Your task to perform on an android device: Go to wifi settings Image 0: 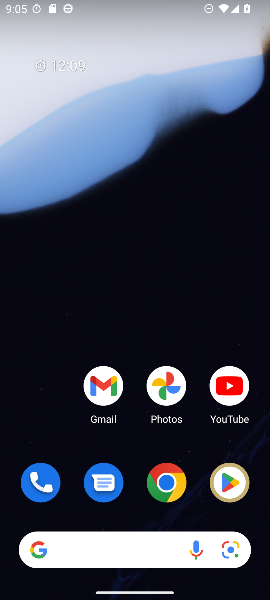
Step 0: drag from (138, 454) to (169, 55)
Your task to perform on an android device: Go to wifi settings Image 1: 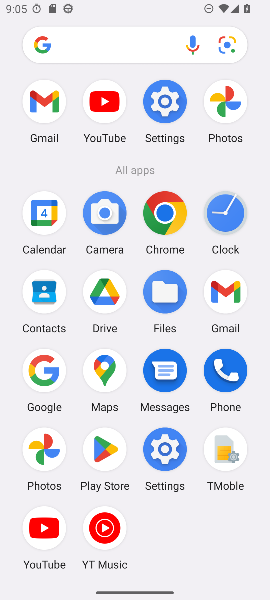
Step 1: click (162, 444)
Your task to perform on an android device: Go to wifi settings Image 2: 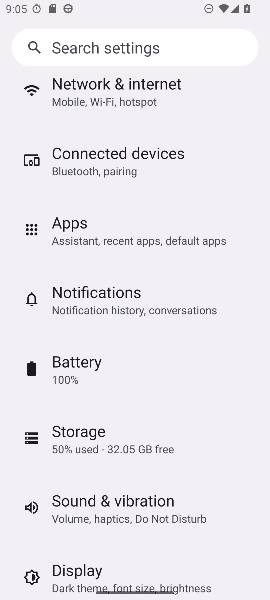
Step 2: click (85, 100)
Your task to perform on an android device: Go to wifi settings Image 3: 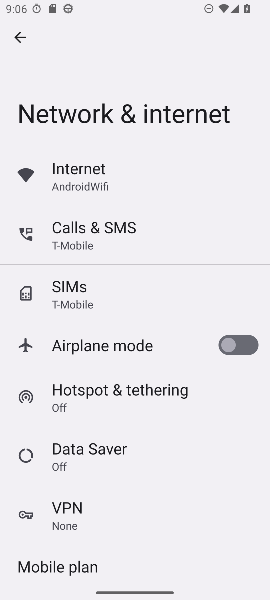
Step 3: click (75, 179)
Your task to perform on an android device: Go to wifi settings Image 4: 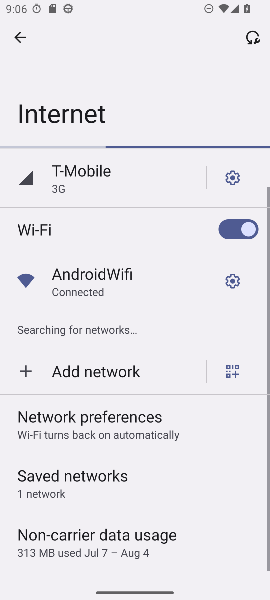
Step 4: task complete